Your task to perform on an android device: What's the weather? Image 0: 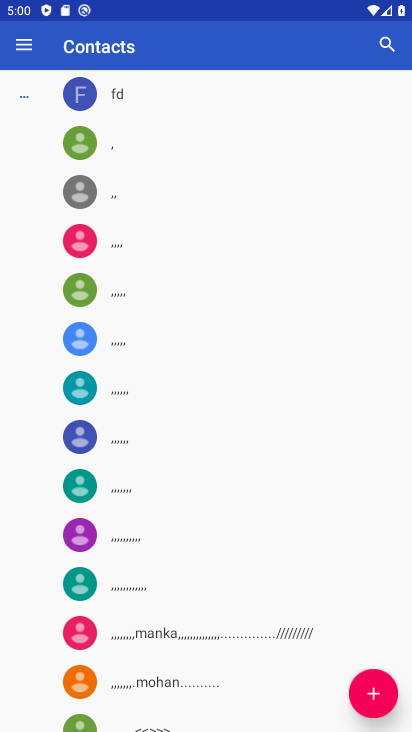
Step 0: press home button
Your task to perform on an android device: What's the weather? Image 1: 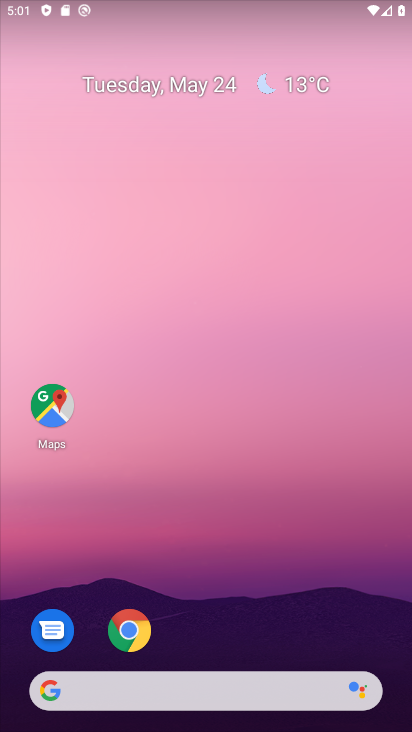
Step 1: drag from (189, 621) to (124, 26)
Your task to perform on an android device: What's the weather? Image 2: 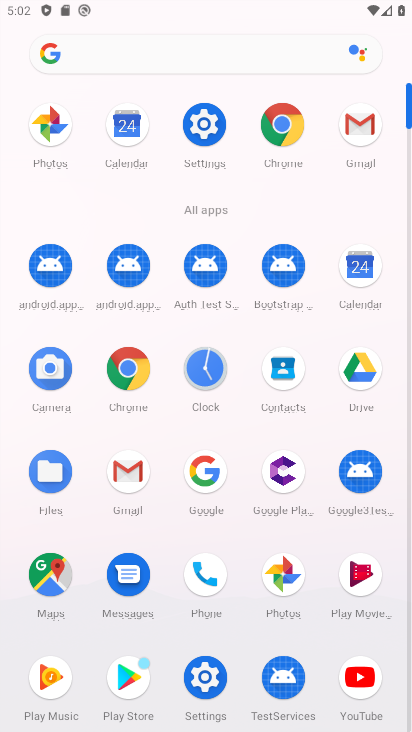
Step 2: click (204, 473)
Your task to perform on an android device: What's the weather? Image 3: 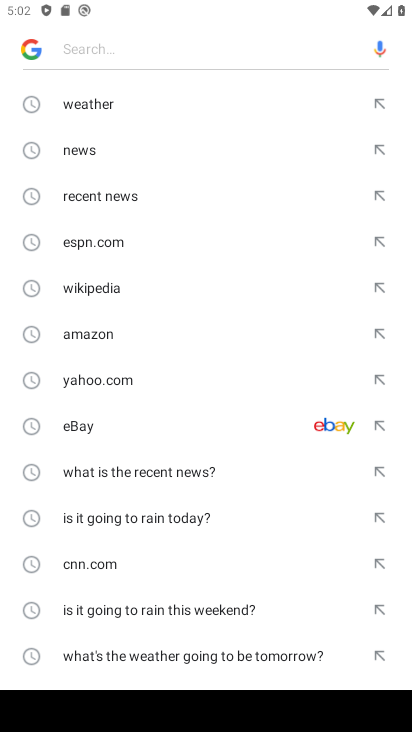
Step 3: click (94, 108)
Your task to perform on an android device: What's the weather? Image 4: 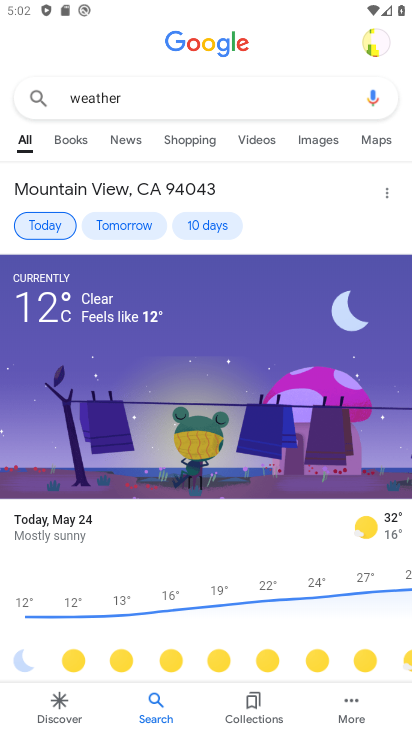
Step 4: task complete